Your task to perform on an android device: Search for Italian restaurants on Maps Image 0: 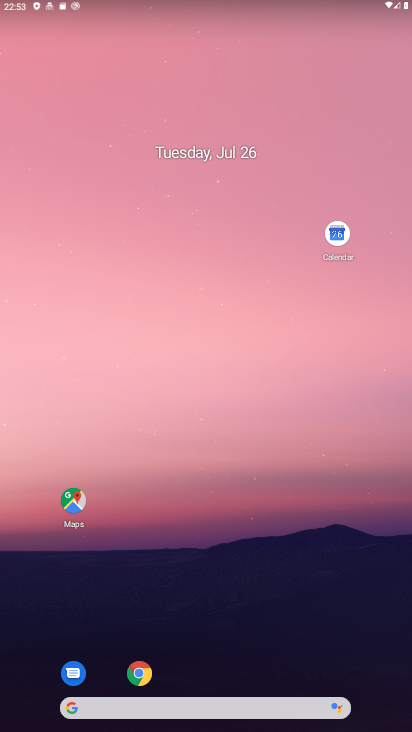
Step 0: click (186, 165)
Your task to perform on an android device: Search for Italian restaurants on Maps Image 1: 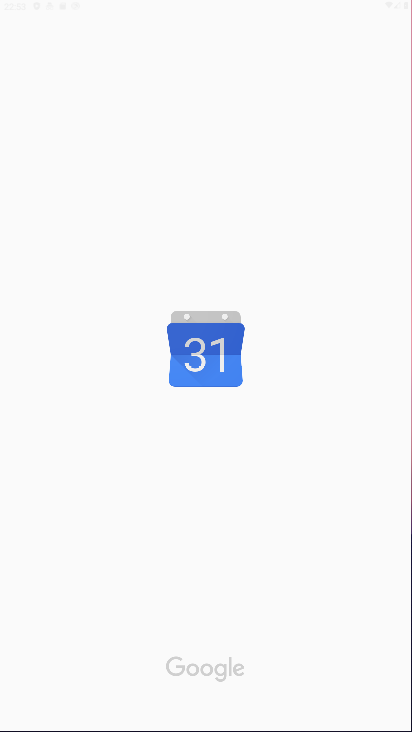
Step 1: click (127, 13)
Your task to perform on an android device: Search for Italian restaurants on Maps Image 2: 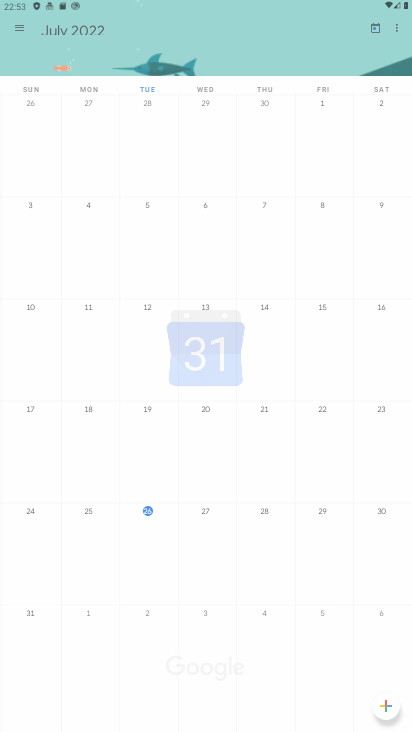
Step 2: drag from (219, 430) to (199, 141)
Your task to perform on an android device: Search for Italian restaurants on Maps Image 3: 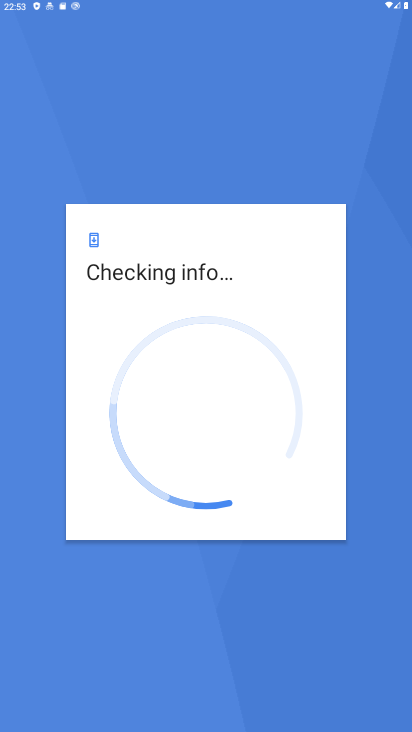
Step 3: click (203, 124)
Your task to perform on an android device: Search for Italian restaurants on Maps Image 4: 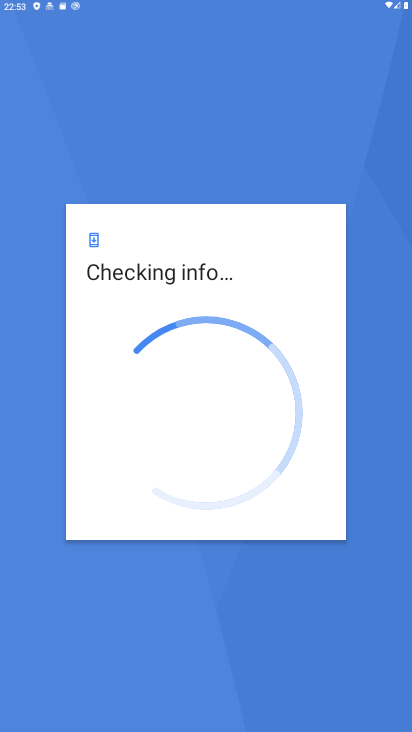
Step 4: drag from (215, 494) to (169, 141)
Your task to perform on an android device: Search for Italian restaurants on Maps Image 5: 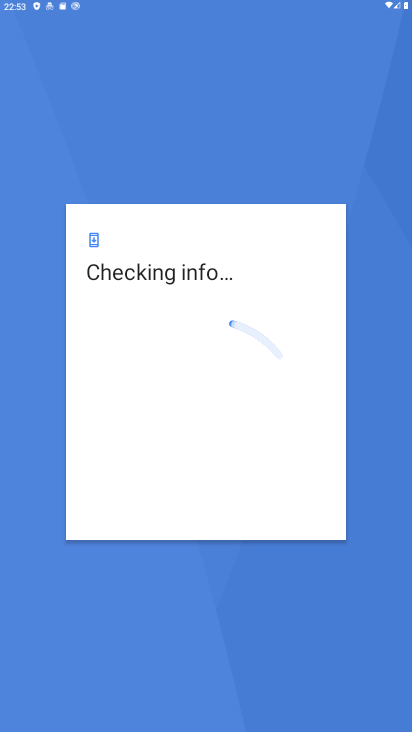
Step 5: press back button
Your task to perform on an android device: Search for Italian restaurants on Maps Image 6: 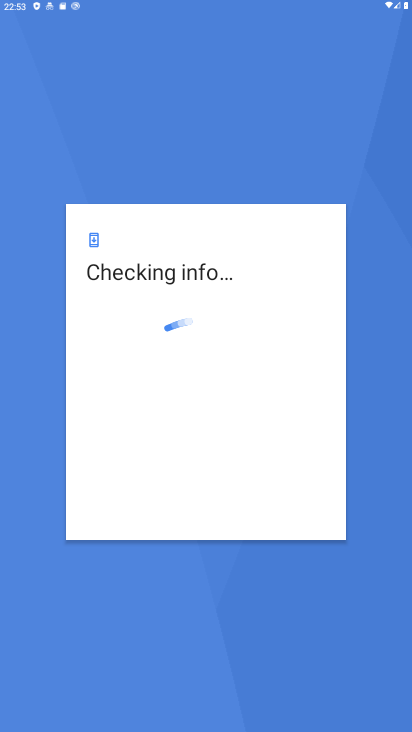
Step 6: press home button
Your task to perform on an android device: Search for Italian restaurants on Maps Image 7: 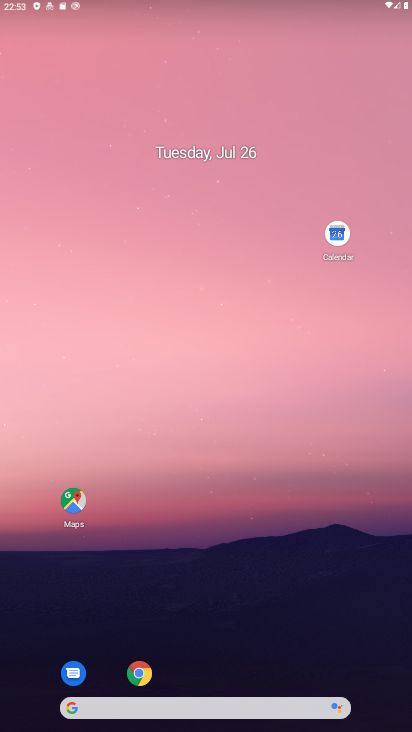
Step 7: press home button
Your task to perform on an android device: Search for Italian restaurants on Maps Image 8: 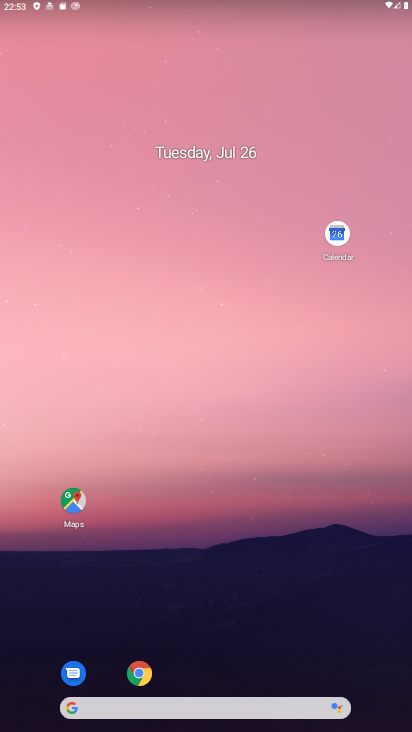
Step 8: click (192, 134)
Your task to perform on an android device: Search for Italian restaurants on Maps Image 9: 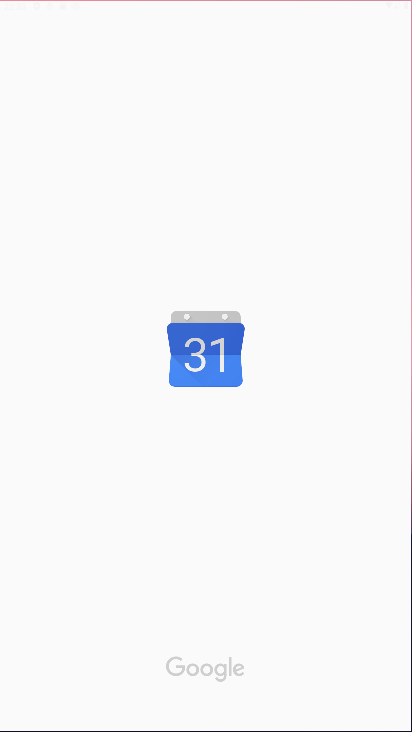
Step 9: drag from (249, 548) to (190, 120)
Your task to perform on an android device: Search for Italian restaurants on Maps Image 10: 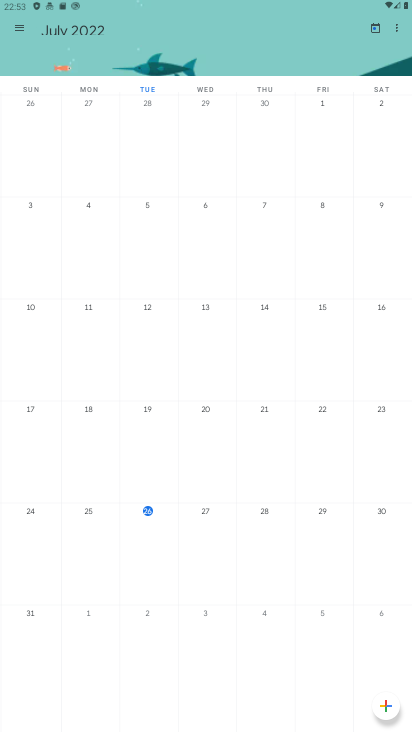
Step 10: drag from (251, 411) to (238, 174)
Your task to perform on an android device: Search for Italian restaurants on Maps Image 11: 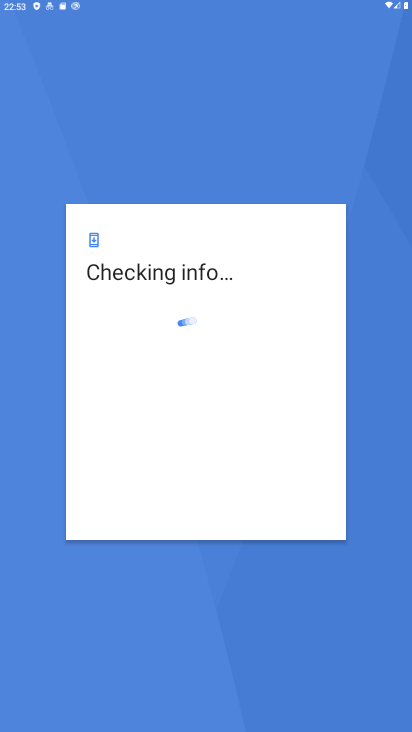
Step 11: press back button
Your task to perform on an android device: Search for Italian restaurants on Maps Image 12: 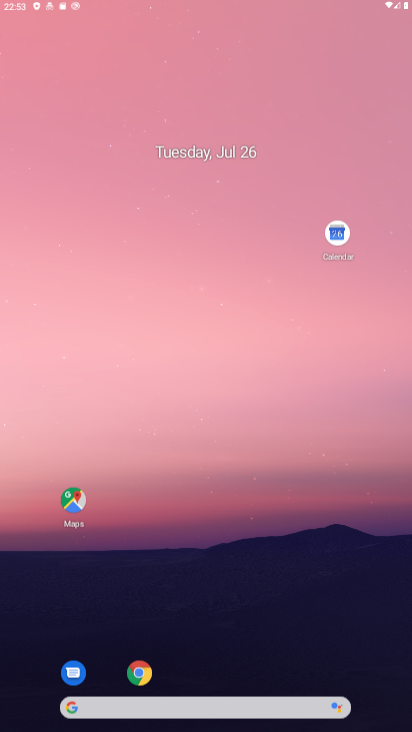
Step 12: click (75, 160)
Your task to perform on an android device: Search for Italian restaurants on Maps Image 13: 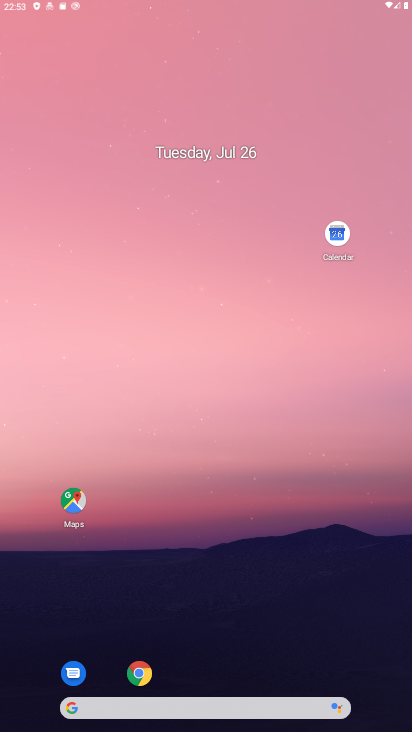
Step 13: click (76, 159)
Your task to perform on an android device: Search for Italian restaurants on Maps Image 14: 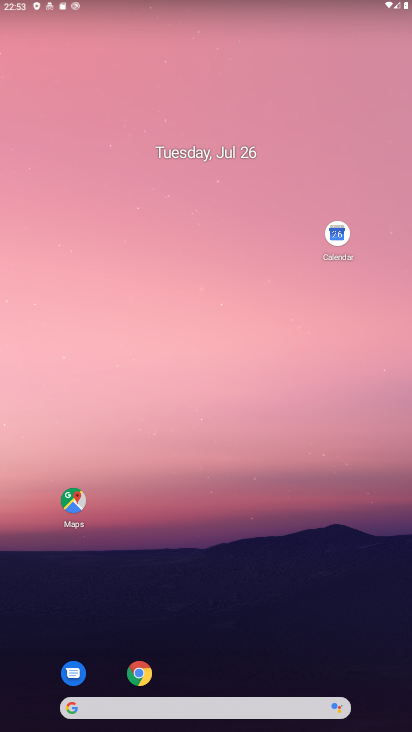
Step 14: drag from (250, 410) to (219, 190)
Your task to perform on an android device: Search for Italian restaurants on Maps Image 15: 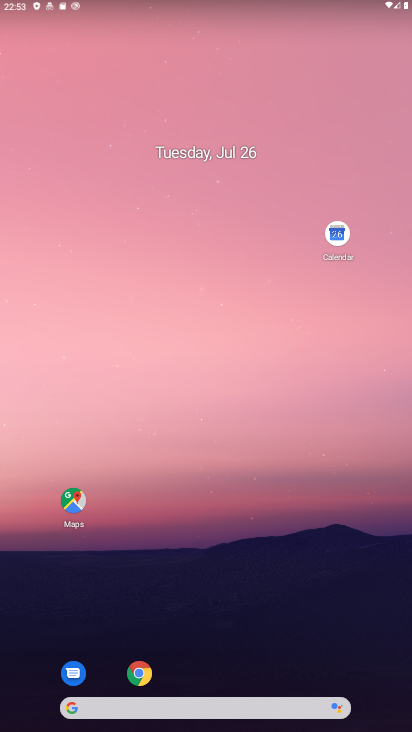
Step 15: drag from (259, 511) to (226, 175)
Your task to perform on an android device: Search for Italian restaurants on Maps Image 16: 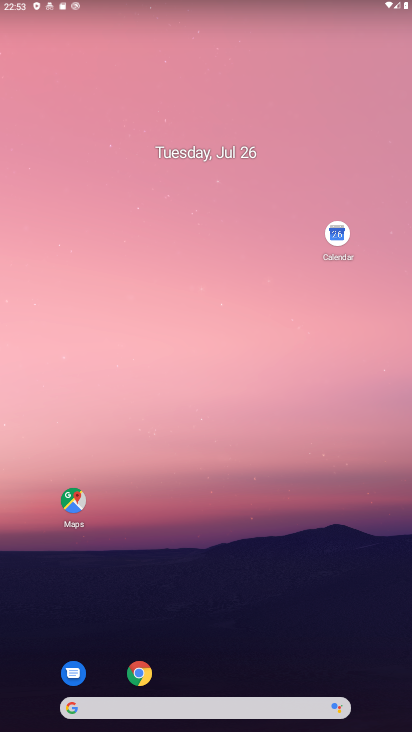
Step 16: drag from (255, 483) to (250, 208)
Your task to perform on an android device: Search for Italian restaurants on Maps Image 17: 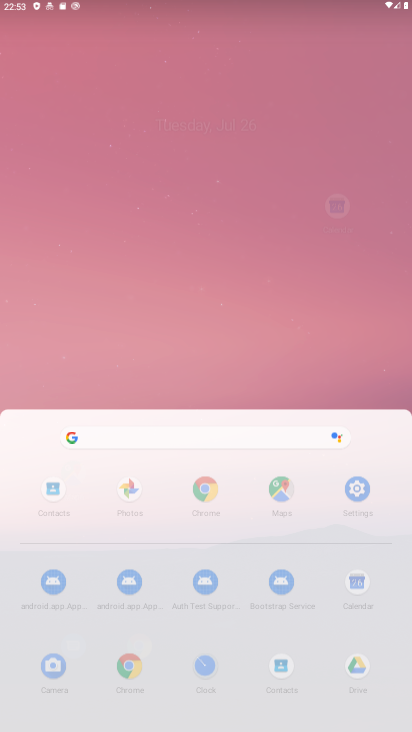
Step 17: drag from (222, 480) to (229, 67)
Your task to perform on an android device: Search for Italian restaurants on Maps Image 18: 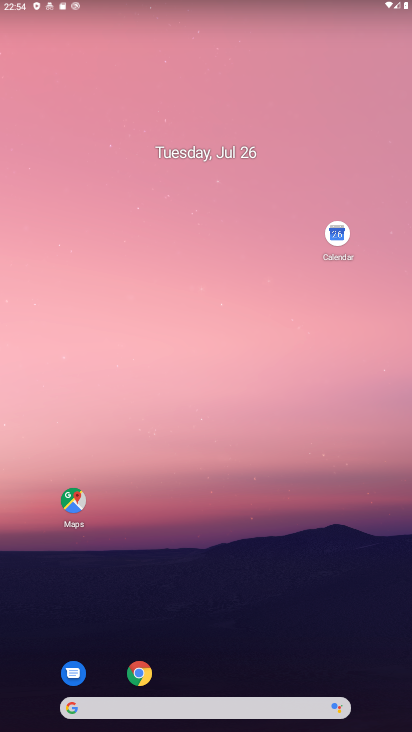
Step 18: drag from (188, 564) to (148, 34)
Your task to perform on an android device: Search for Italian restaurants on Maps Image 19: 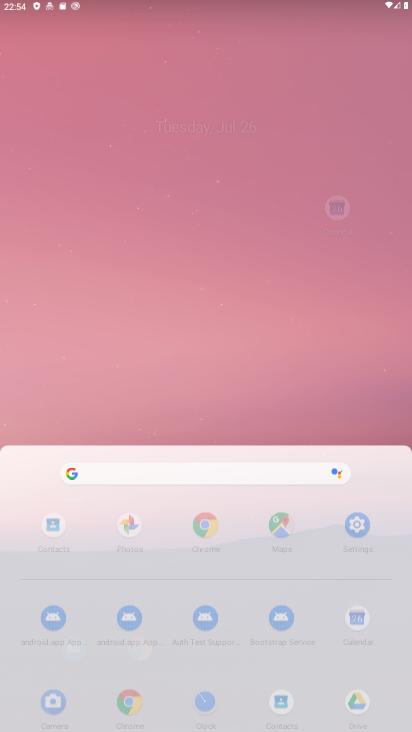
Step 19: drag from (293, 540) to (263, 51)
Your task to perform on an android device: Search for Italian restaurants on Maps Image 20: 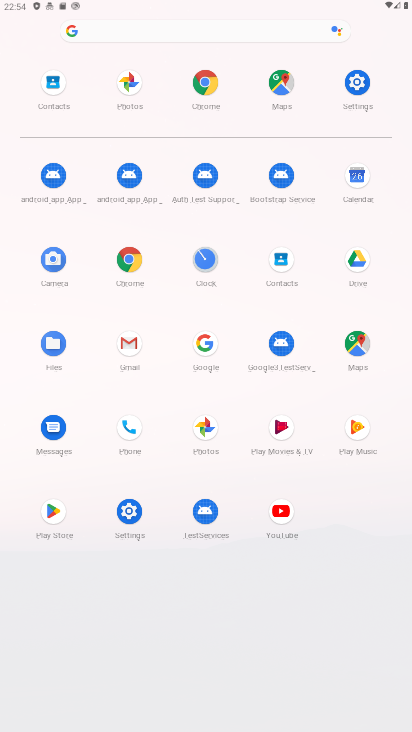
Step 20: drag from (239, 389) to (200, 13)
Your task to perform on an android device: Search for Italian restaurants on Maps Image 21: 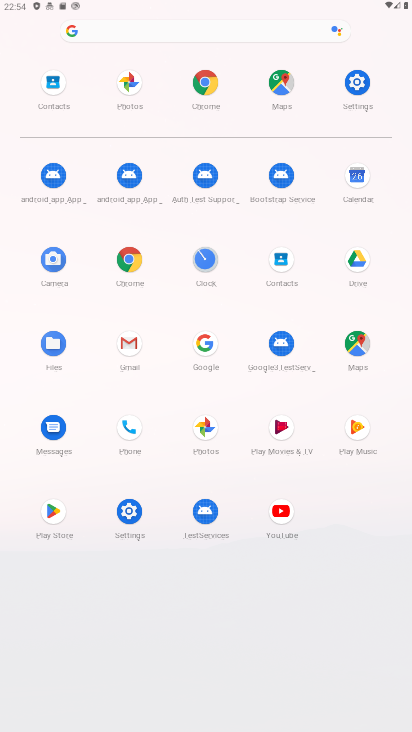
Step 21: click (352, 349)
Your task to perform on an android device: Search for Italian restaurants on Maps Image 22: 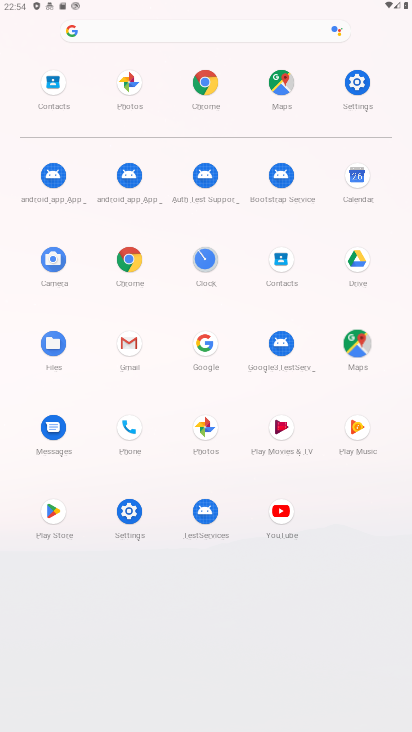
Step 22: click (351, 348)
Your task to perform on an android device: Search for Italian restaurants on Maps Image 23: 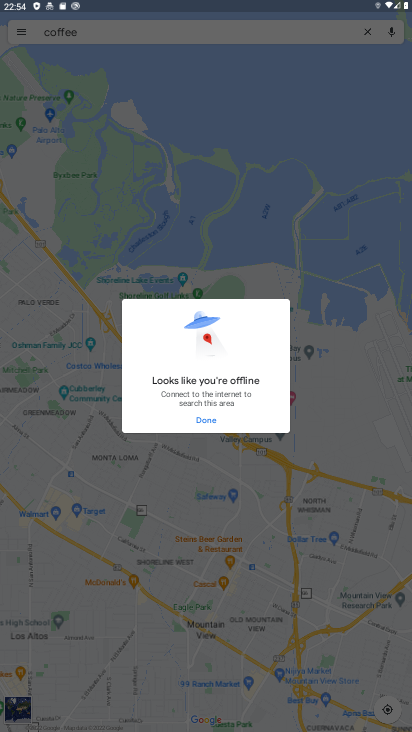
Step 23: click (164, 122)
Your task to perform on an android device: Search for Italian restaurants on Maps Image 24: 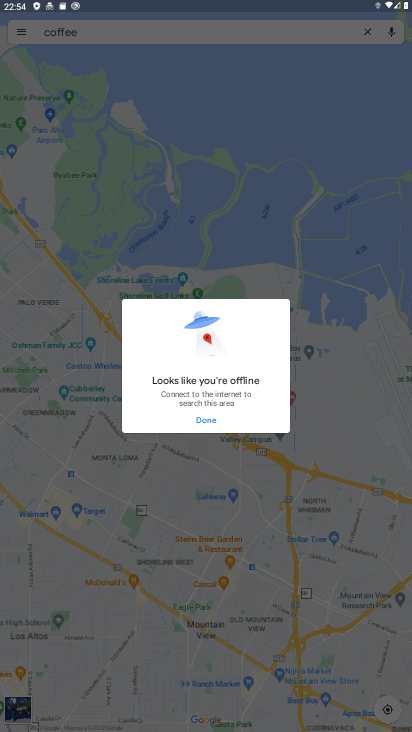
Step 24: drag from (164, 121) to (268, 238)
Your task to perform on an android device: Search for Italian restaurants on Maps Image 25: 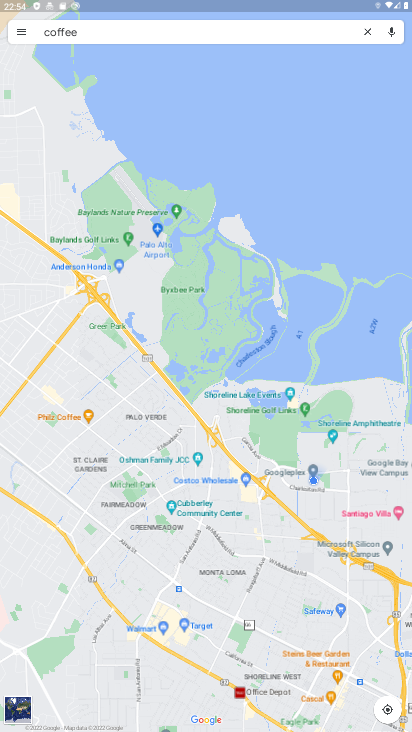
Step 25: click (98, 31)
Your task to perform on an android device: Search for Italian restaurants on Maps Image 26: 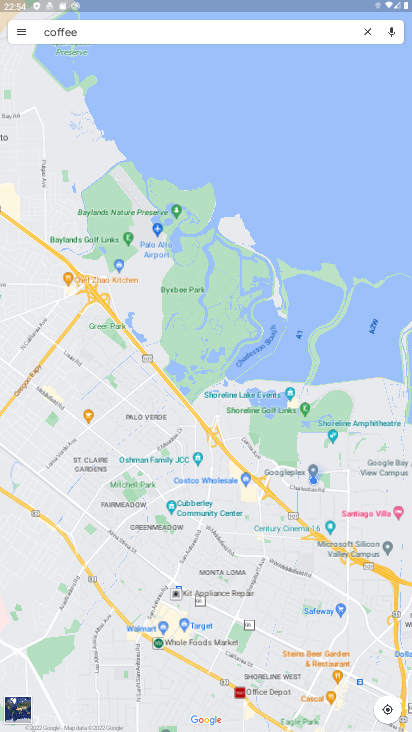
Step 26: click (97, 29)
Your task to perform on an android device: Search for Italian restaurants on Maps Image 27: 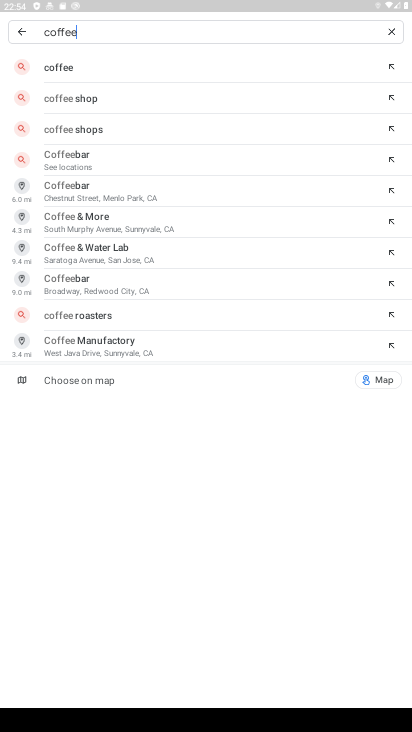
Step 27: click (392, 28)
Your task to perform on an android device: Search for Italian restaurants on Maps Image 28: 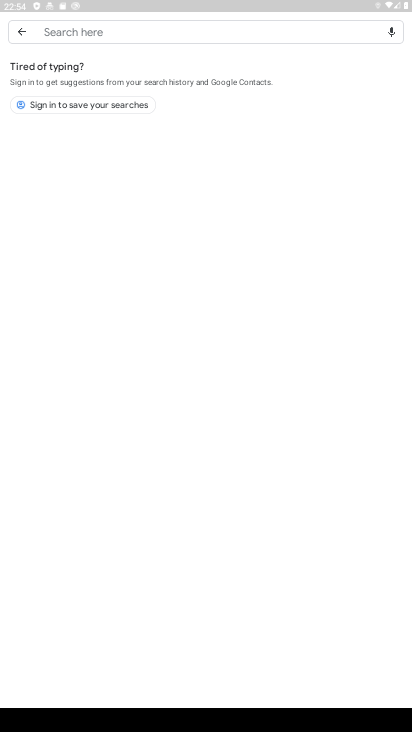
Step 28: click (390, 27)
Your task to perform on an android device: Search for Italian restaurants on Maps Image 29: 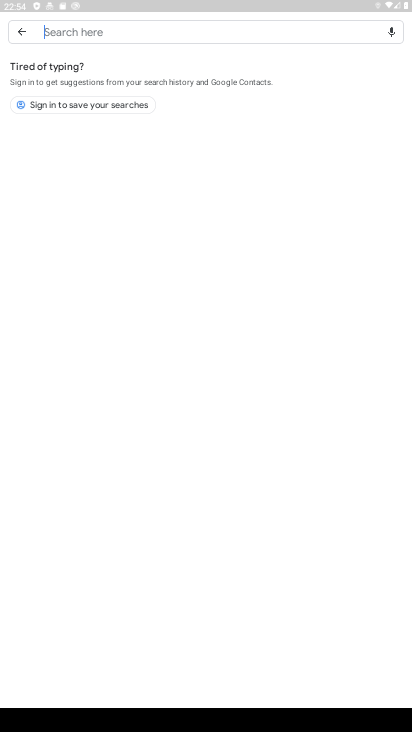
Step 29: click (54, 27)
Your task to perform on an android device: Search for Italian restaurants on Maps Image 30: 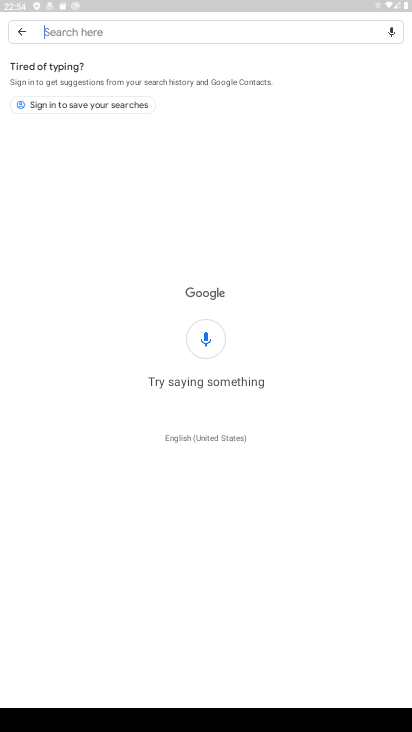
Step 30: click (54, 27)
Your task to perform on an android device: Search for Italian restaurants on Maps Image 31: 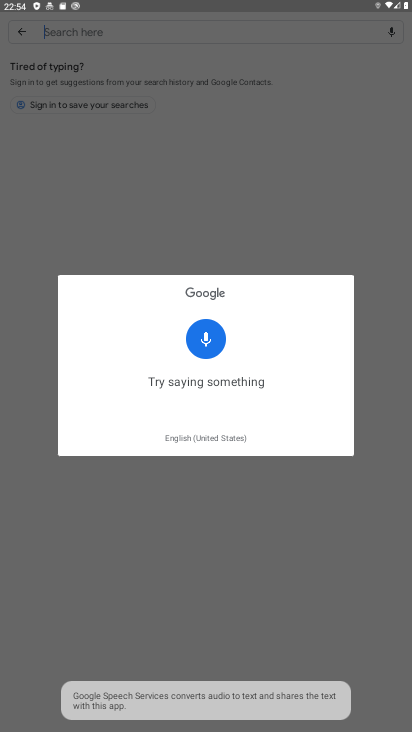
Step 31: click (52, 26)
Your task to perform on an android device: Search for Italian restaurants on Maps Image 32: 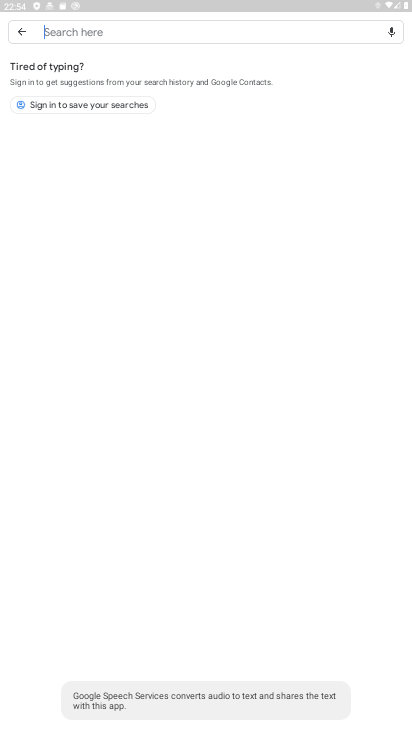
Step 32: click (52, 28)
Your task to perform on an android device: Search for Italian restaurants on Maps Image 33: 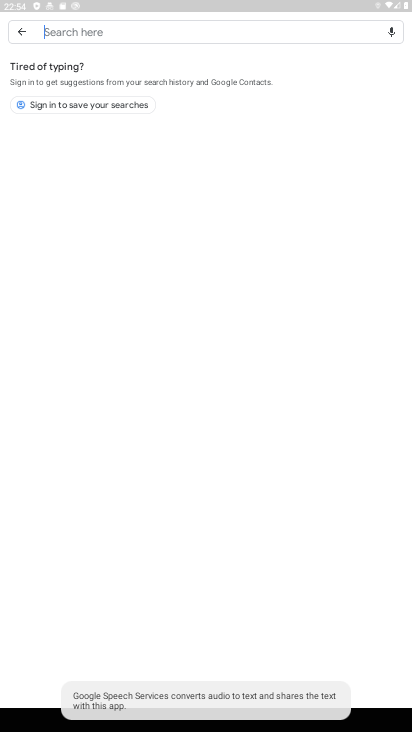
Step 33: click (53, 30)
Your task to perform on an android device: Search for Italian restaurants on Maps Image 34: 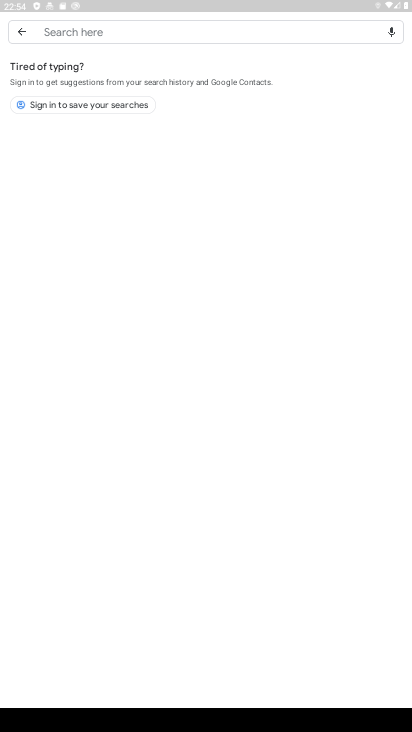
Step 34: type "italian restaurants"
Your task to perform on an android device: Search for Italian restaurants on Maps Image 35: 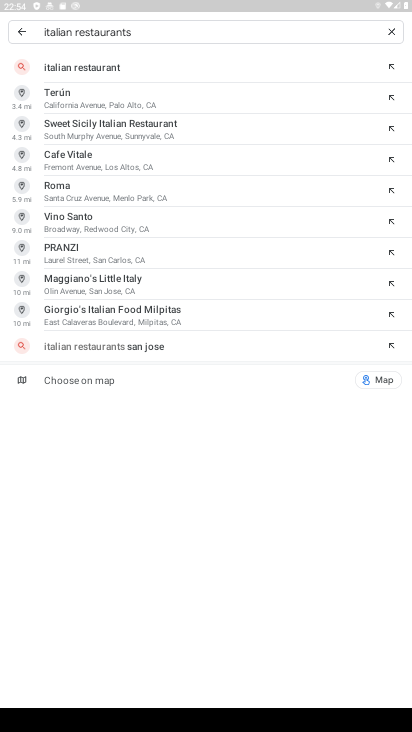
Step 35: click (102, 69)
Your task to perform on an android device: Search for Italian restaurants on Maps Image 36: 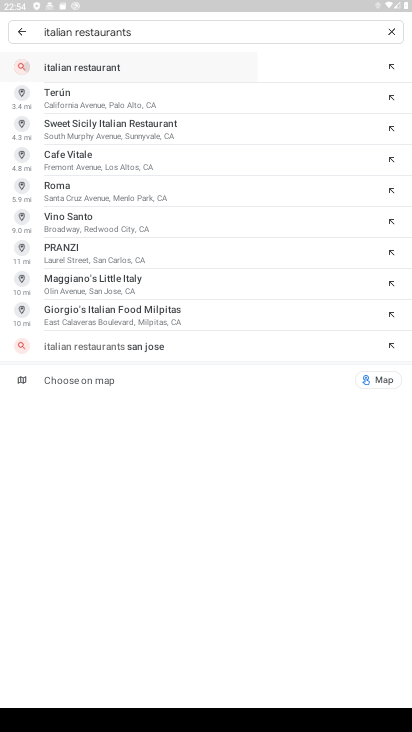
Step 36: click (102, 69)
Your task to perform on an android device: Search for Italian restaurants on Maps Image 37: 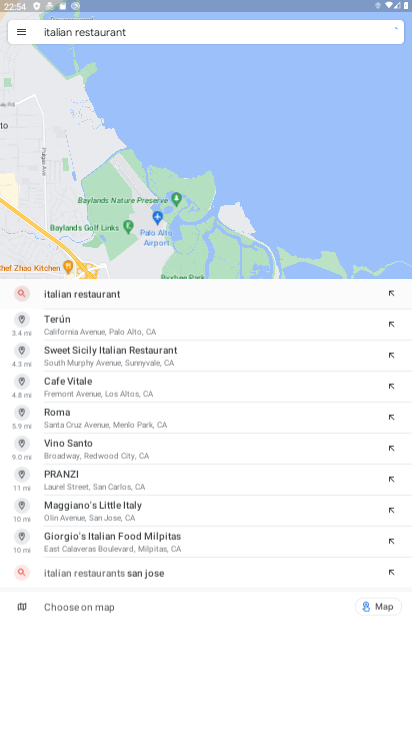
Step 37: click (102, 68)
Your task to perform on an android device: Search for Italian restaurants on Maps Image 38: 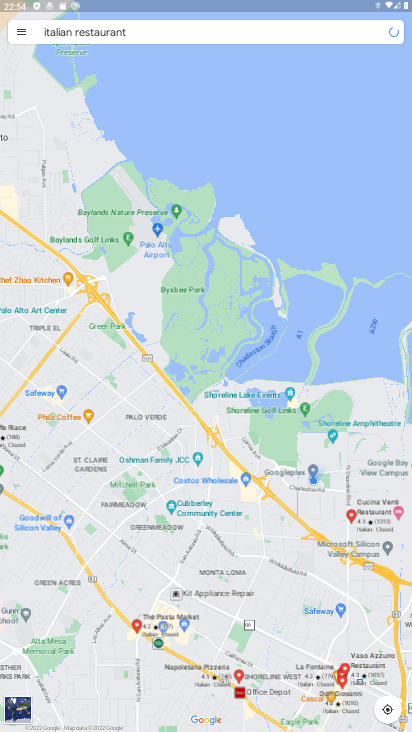
Step 38: task complete